Your task to perform on an android device: snooze an email in the gmail app Image 0: 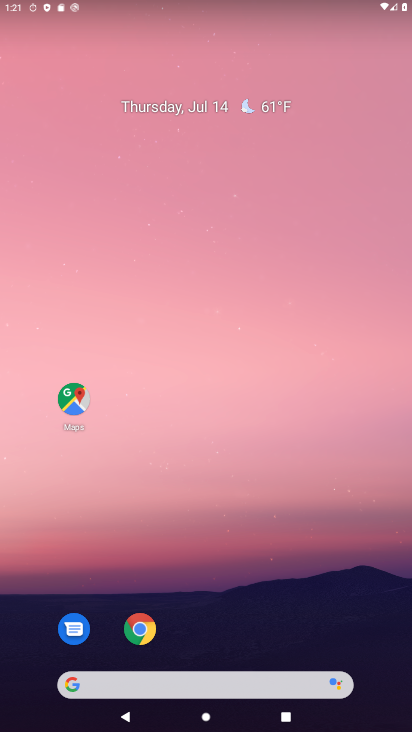
Step 0: click (232, 295)
Your task to perform on an android device: snooze an email in the gmail app Image 1: 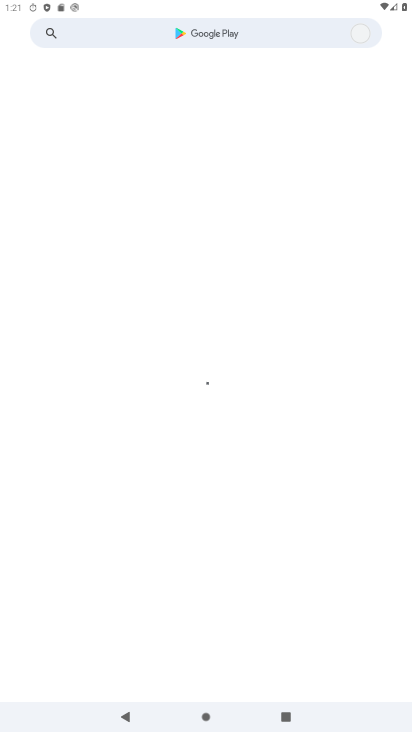
Step 1: press home button
Your task to perform on an android device: snooze an email in the gmail app Image 2: 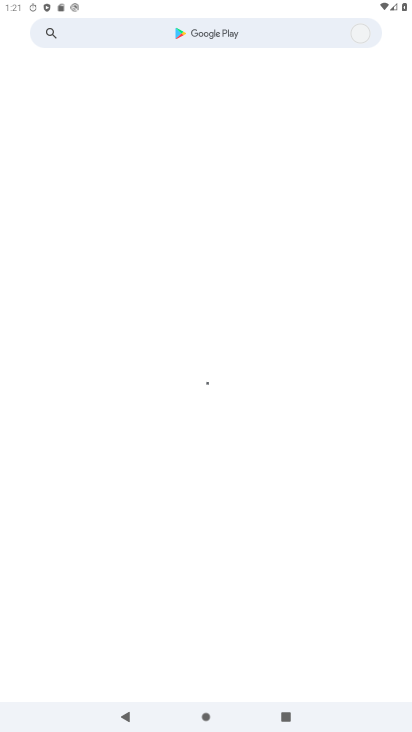
Step 2: press home button
Your task to perform on an android device: snooze an email in the gmail app Image 3: 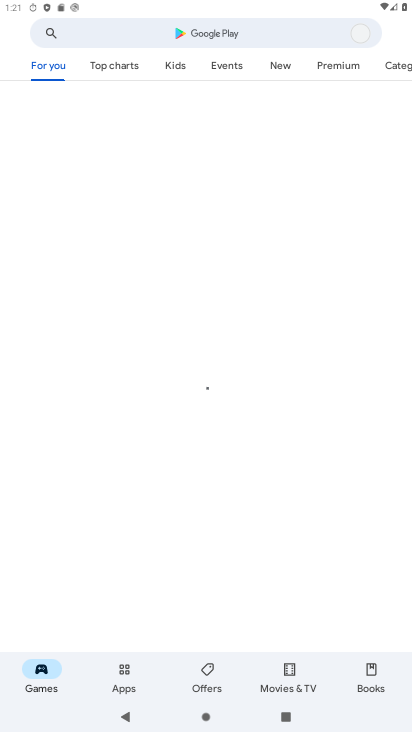
Step 3: click (211, 168)
Your task to perform on an android device: snooze an email in the gmail app Image 4: 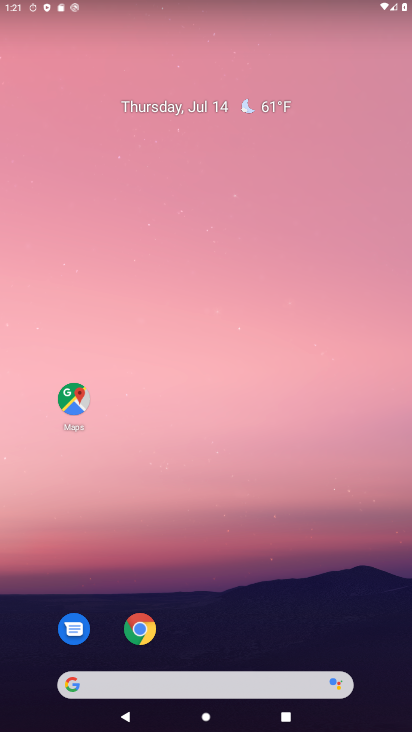
Step 4: drag from (200, 660) to (315, 132)
Your task to perform on an android device: snooze an email in the gmail app Image 5: 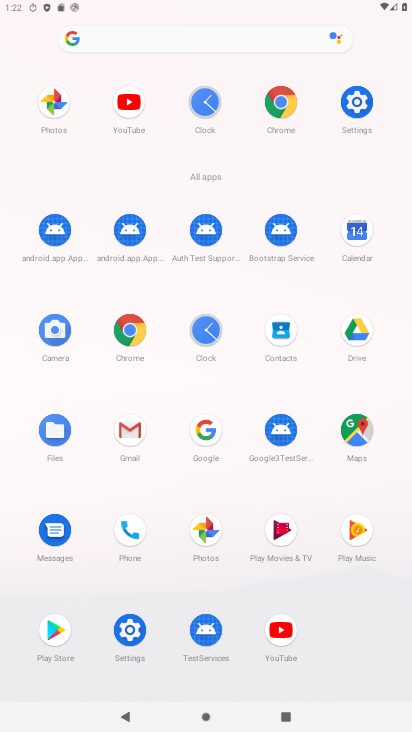
Step 5: click (133, 431)
Your task to perform on an android device: snooze an email in the gmail app Image 6: 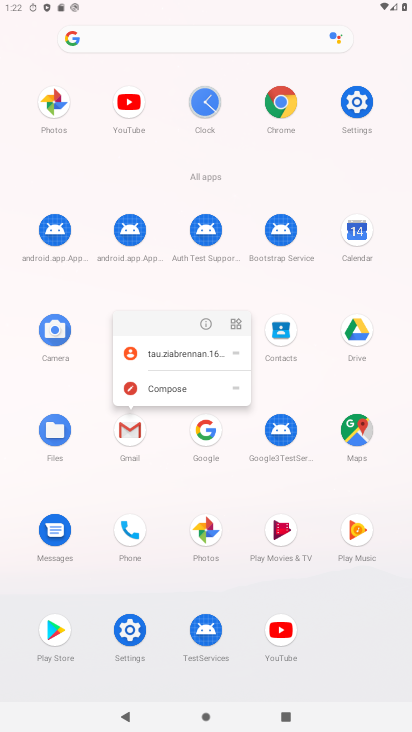
Step 6: click (205, 323)
Your task to perform on an android device: snooze an email in the gmail app Image 7: 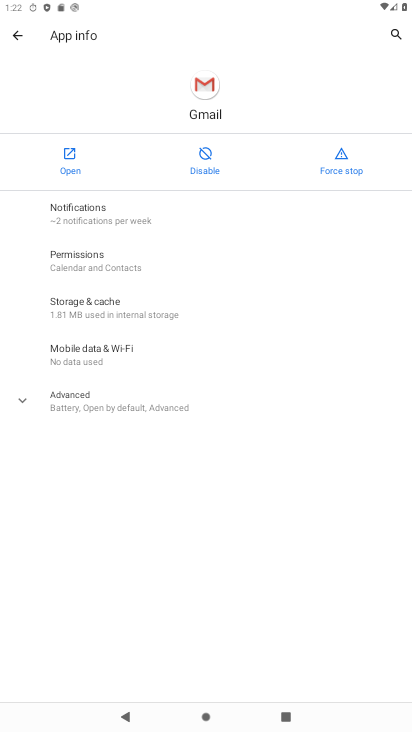
Step 7: click (68, 163)
Your task to perform on an android device: snooze an email in the gmail app Image 8: 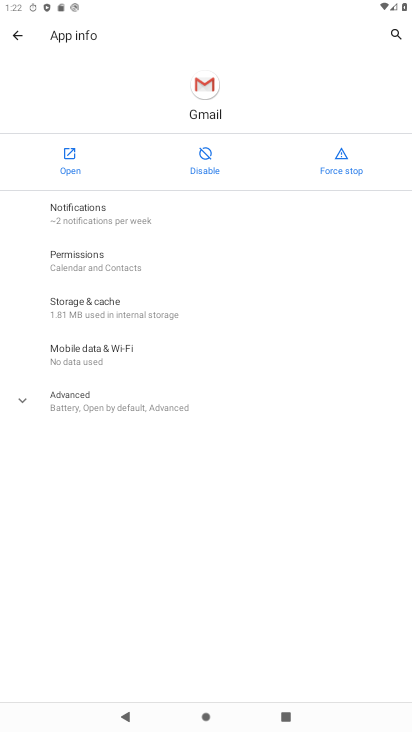
Step 8: click (68, 163)
Your task to perform on an android device: snooze an email in the gmail app Image 9: 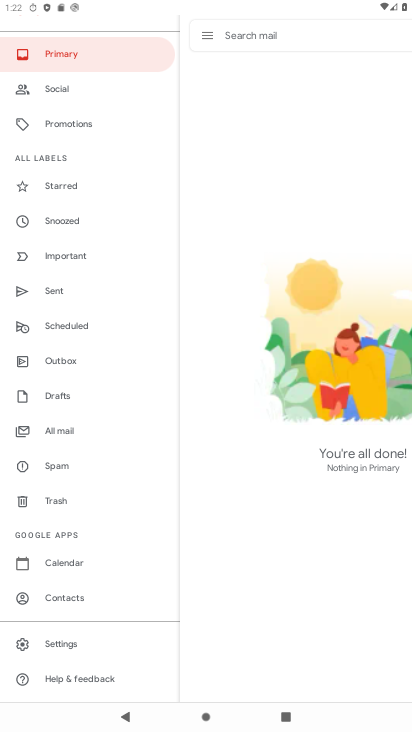
Step 9: task complete